Your task to perform on an android device: visit the assistant section in the google photos Image 0: 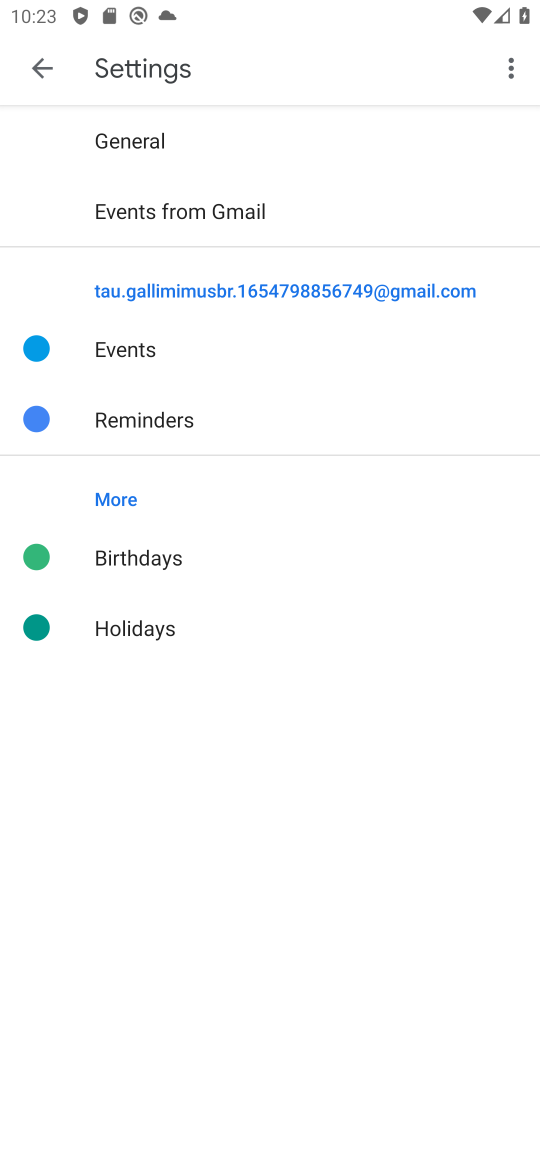
Step 0: press home button
Your task to perform on an android device: visit the assistant section in the google photos Image 1: 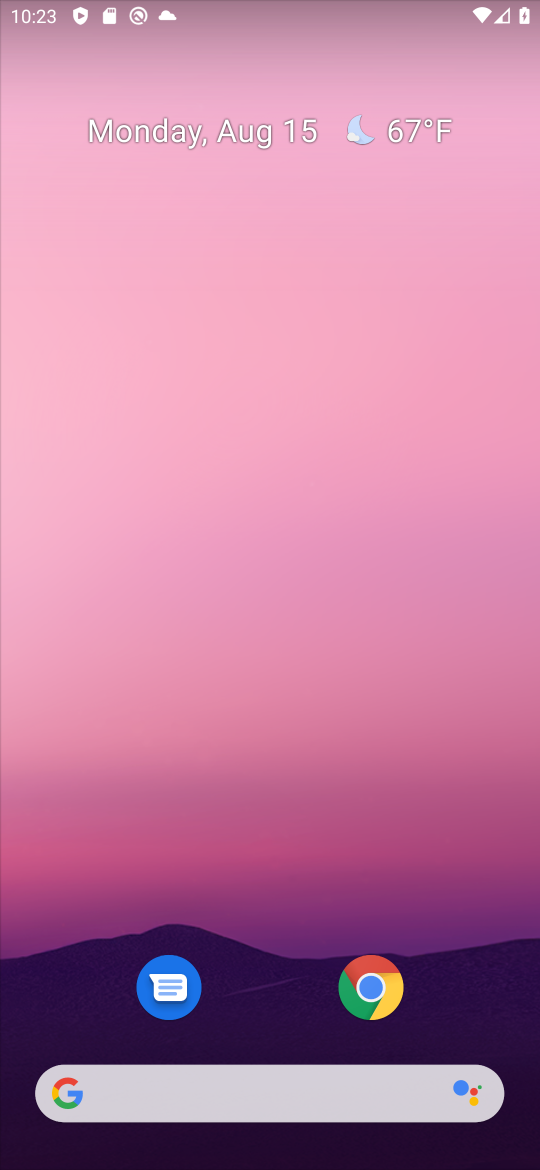
Step 1: drag from (296, 1059) to (271, 173)
Your task to perform on an android device: visit the assistant section in the google photos Image 2: 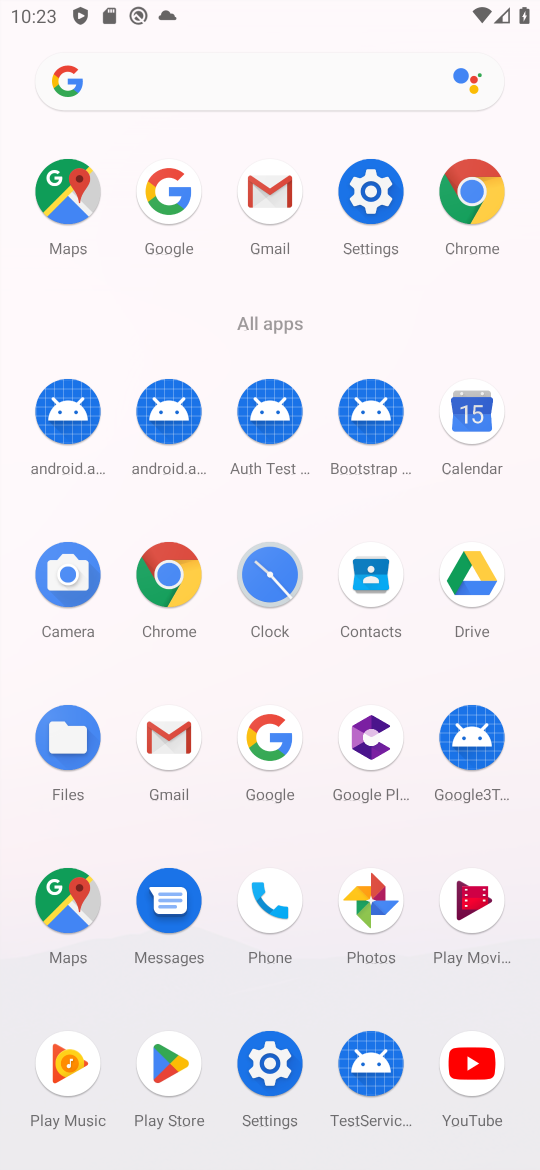
Step 2: click (348, 892)
Your task to perform on an android device: visit the assistant section in the google photos Image 3: 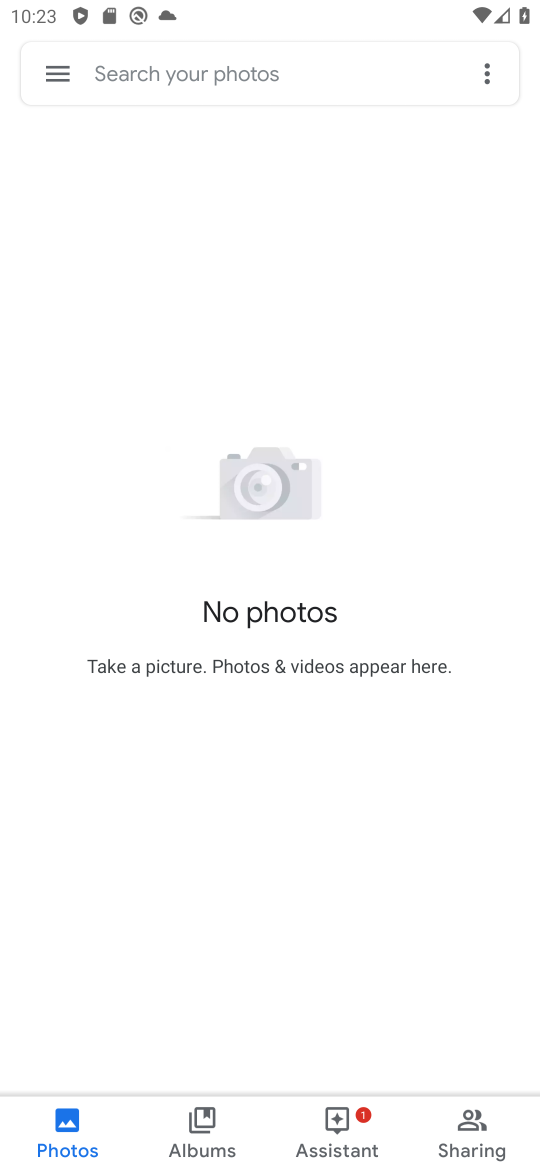
Step 3: click (231, 75)
Your task to perform on an android device: visit the assistant section in the google photos Image 4: 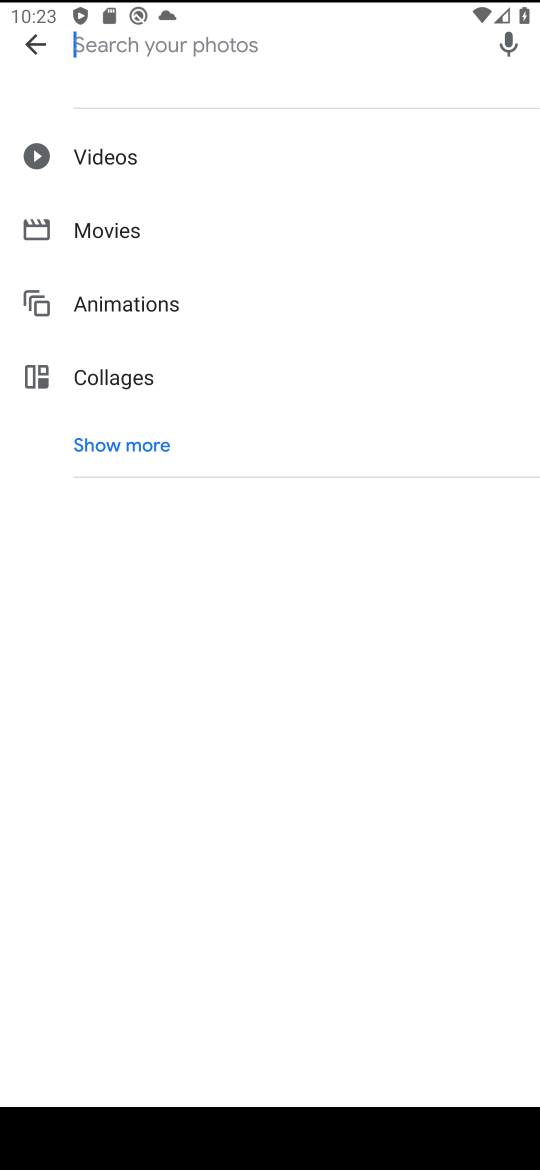
Step 4: click (22, 36)
Your task to perform on an android device: visit the assistant section in the google photos Image 5: 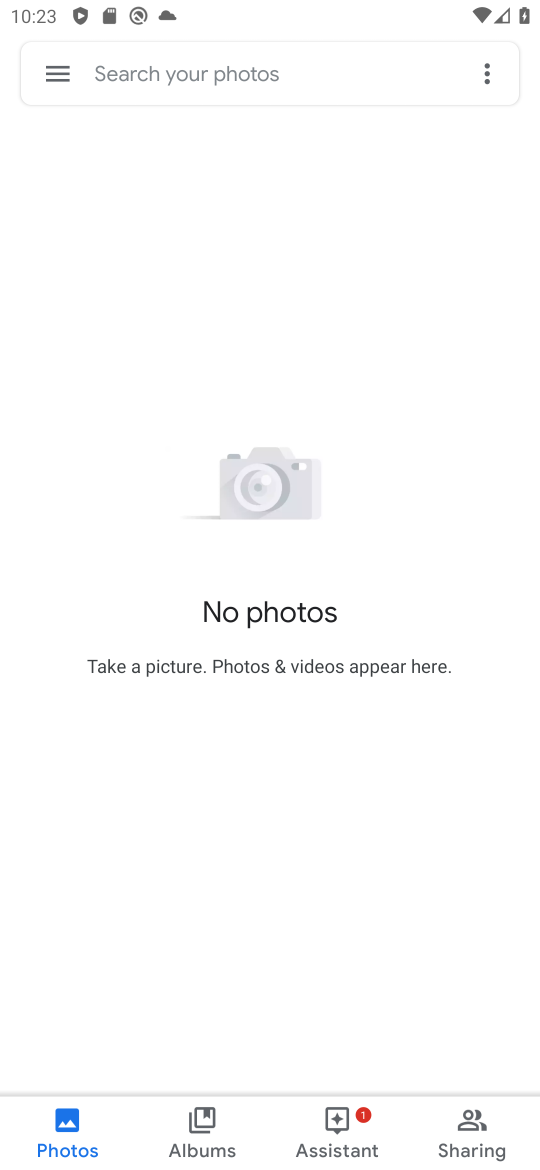
Step 5: click (338, 1137)
Your task to perform on an android device: visit the assistant section in the google photos Image 6: 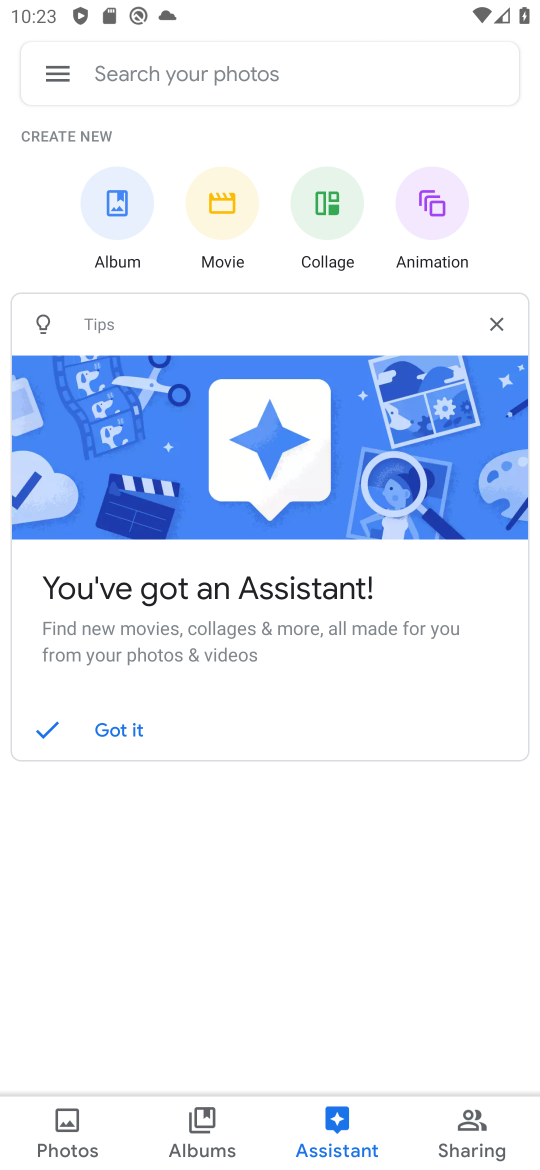
Step 6: task complete